Your task to perform on an android device: What's the weather going to be tomorrow? Image 0: 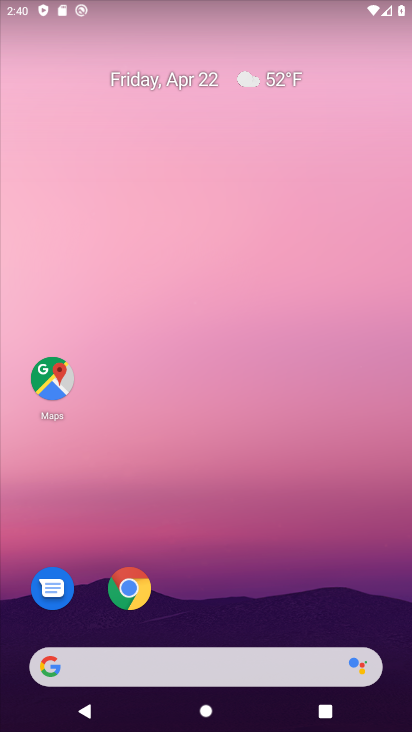
Step 0: click (279, 86)
Your task to perform on an android device: What's the weather going to be tomorrow? Image 1: 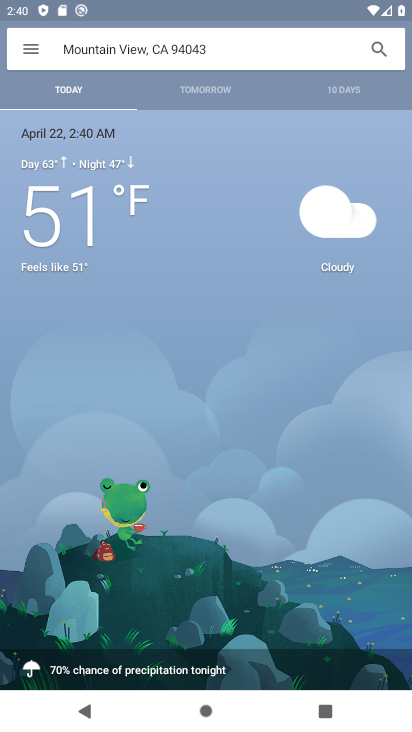
Step 1: click (202, 90)
Your task to perform on an android device: What's the weather going to be tomorrow? Image 2: 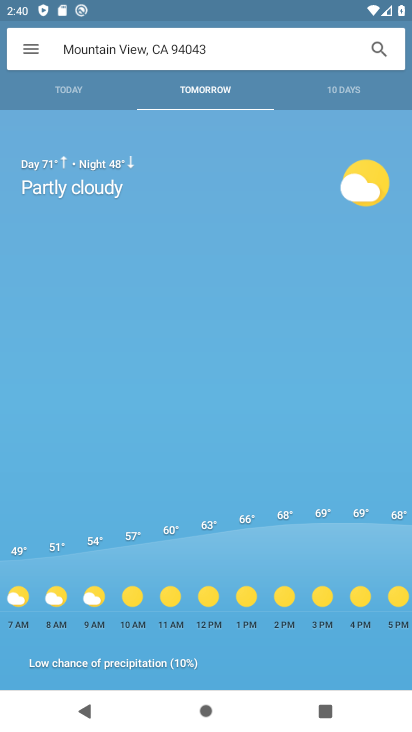
Step 2: task complete